Your task to perform on an android device: show emergency info Image 0: 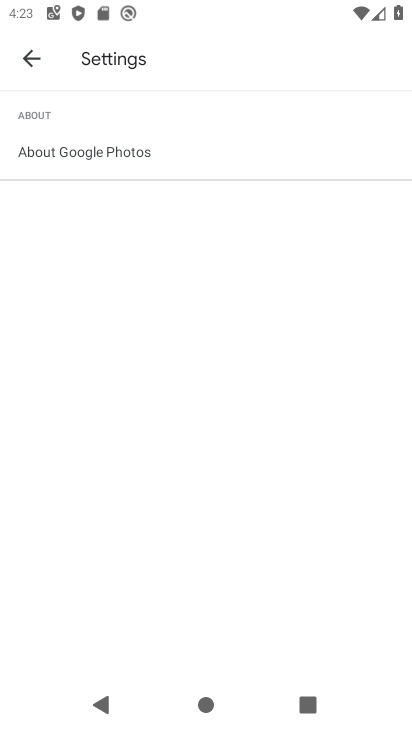
Step 0: press home button
Your task to perform on an android device: show emergency info Image 1: 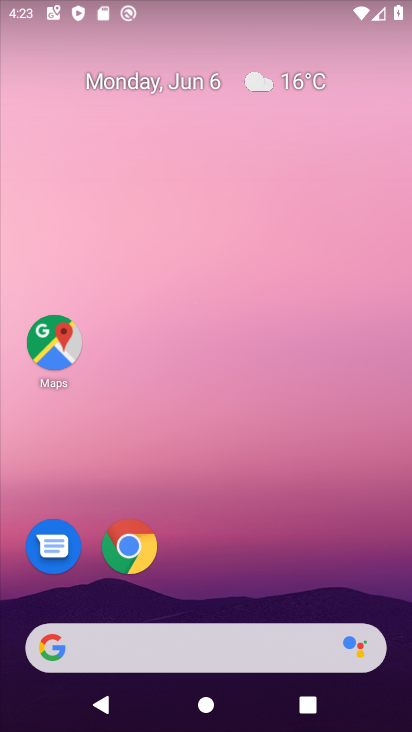
Step 1: drag from (207, 628) to (233, 0)
Your task to perform on an android device: show emergency info Image 2: 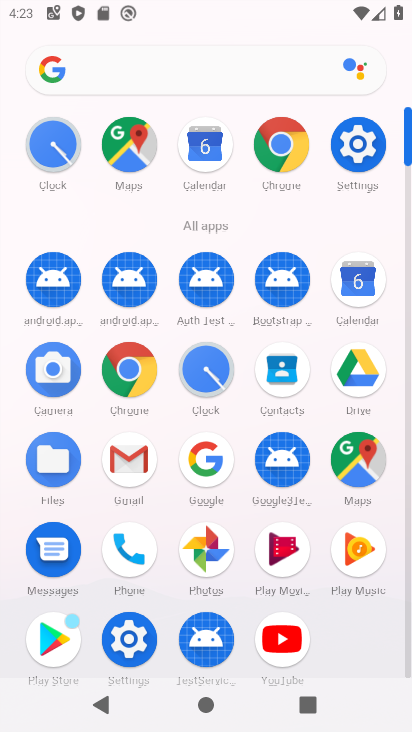
Step 2: click (352, 153)
Your task to perform on an android device: show emergency info Image 3: 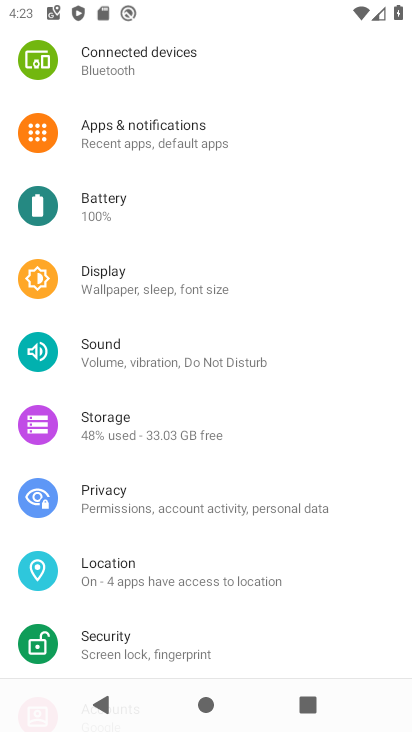
Step 3: drag from (266, 559) to (203, 9)
Your task to perform on an android device: show emergency info Image 4: 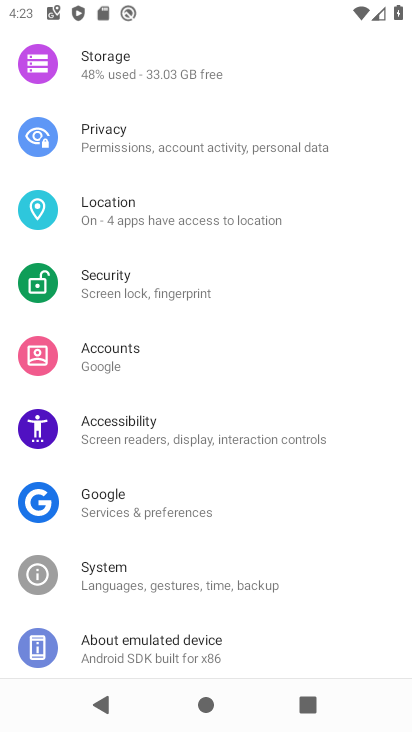
Step 4: click (153, 655)
Your task to perform on an android device: show emergency info Image 5: 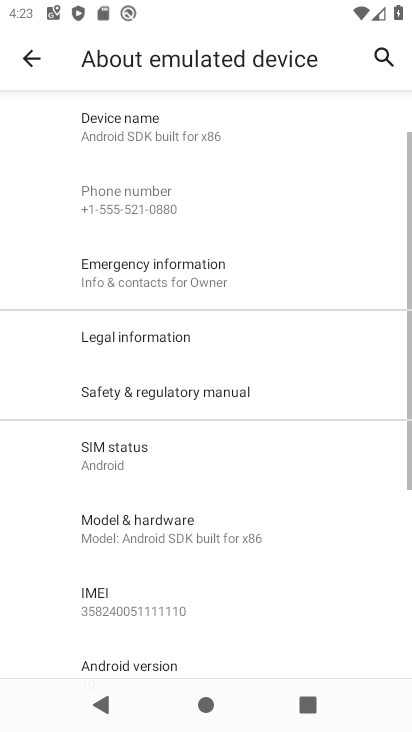
Step 5: click (163, 253)
Your task to perform on an android device: show emergency info Image 6: 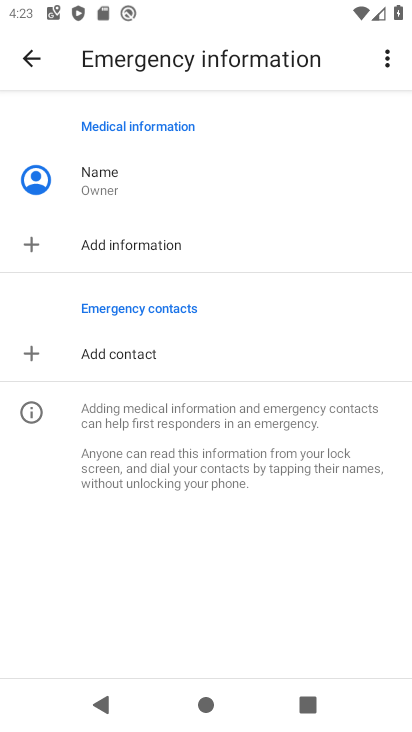
Step 6: task complete